Your task to perform on an android device: Toggle the flashlight Image 0: 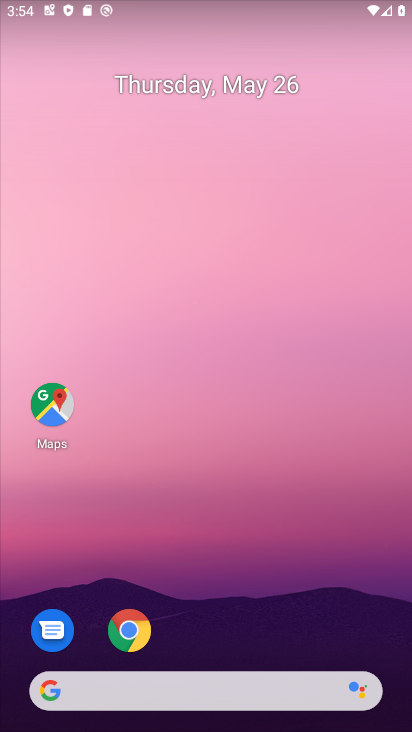
Step 0: drag from (262, 579) to (264, 0)
Your task to perform on an android device: Toggle the flashlight Image 1: 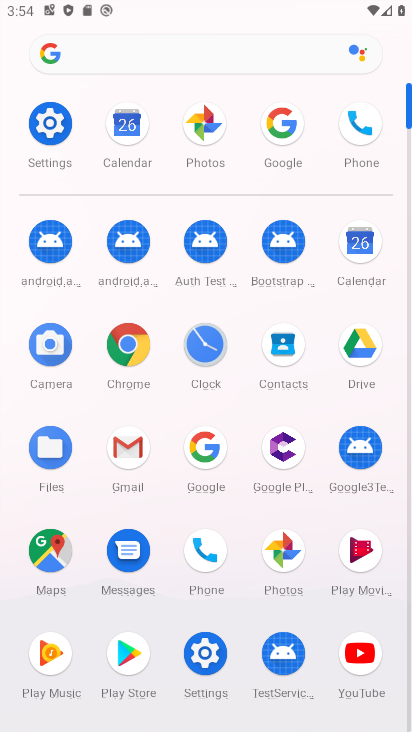
Step 1: click (51, 124)
Your task to perform on an android device: Toggle the flashlight Image 2: 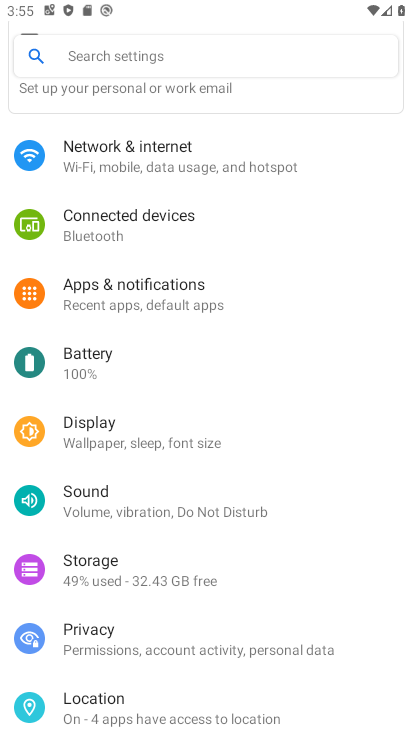
Step 2: drag from (129, 355) to (158, 304)
Your task to perform on an android device: Toggle the flashlight Image 3: 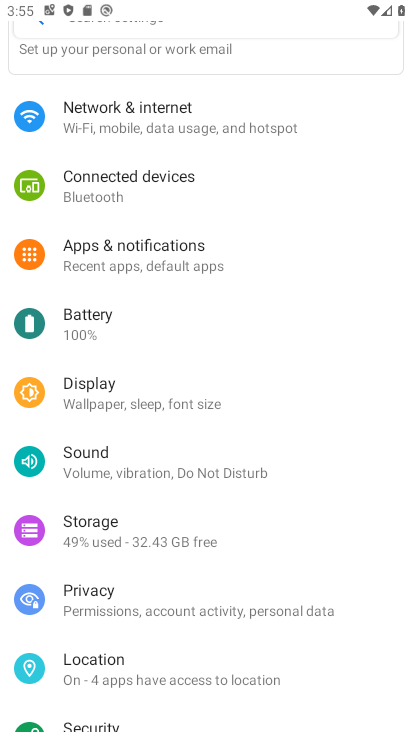
Step 3: drag from (143, 361) to (163, 303)
Your task to perform on an android device: Toggle the flashlight Image 4: 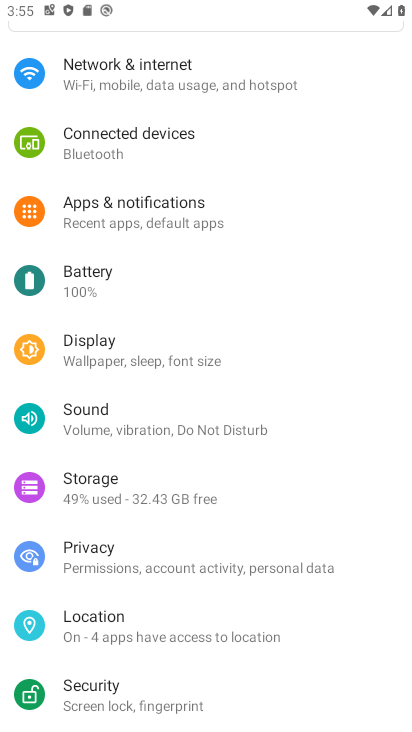
Step 4: drag from (118, 447) to (166, 383)
Your task to perform on an android device: Toggle the flashlight Image 5: 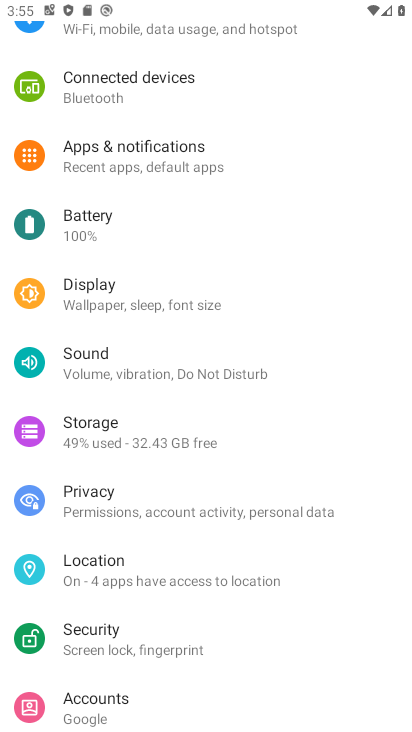
Step 5: drag from (146, 483) to (197, 403)
Your task to perform on an android device: Toggle the flashlight Image 6: 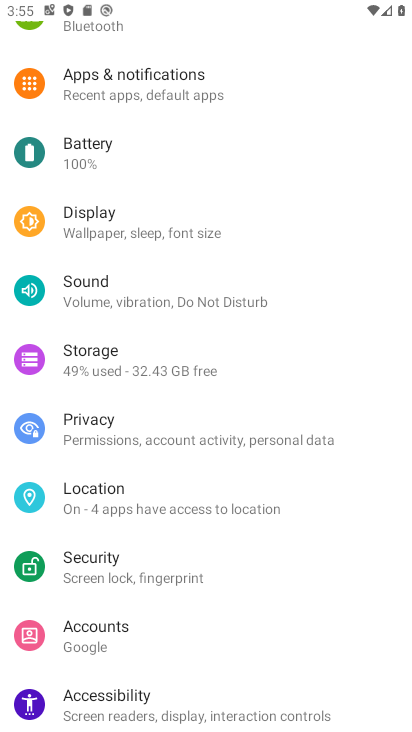
Step 6: drag from (141, 489) to (220, 399)
Your task to perform on an android device: Toggle the flashlight Image 7: 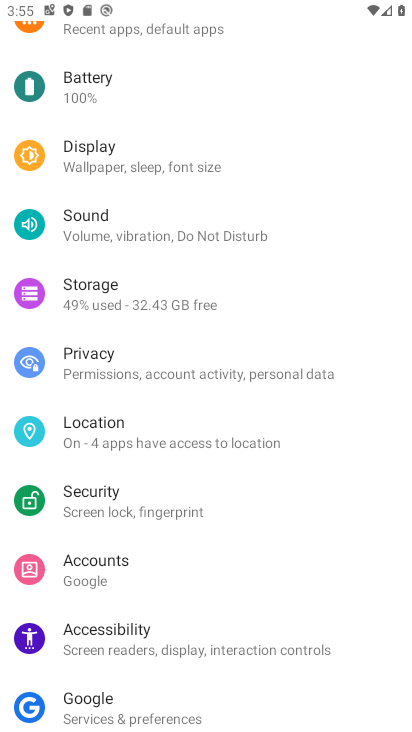
Step 7: click (208, 391)
Your task to perform on an android device: Toggle the flashlight Image 8: 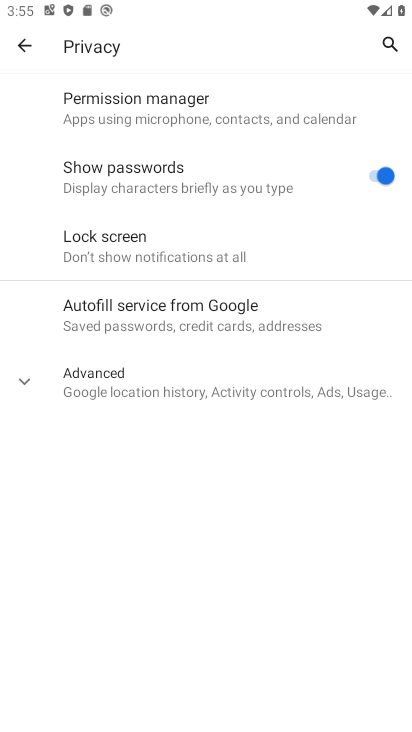
Step 8: press back button
Your task to perform on an android device: Toggle the flashlight Image 9: 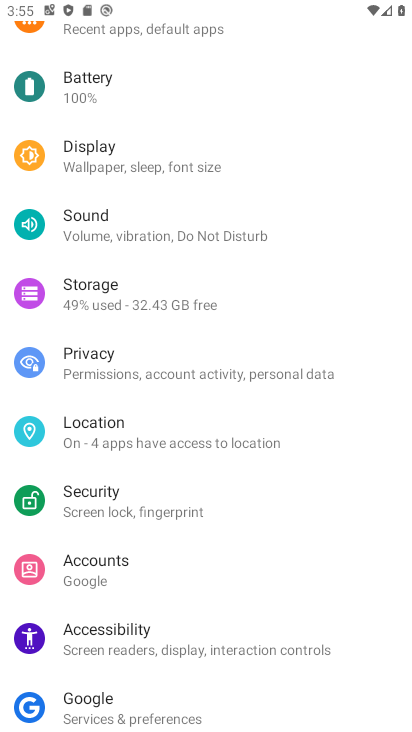
Step 9: drag from (170, 581) to (228, 466)
Your task to perform on an android device: Toggle the flashlight Image 10: 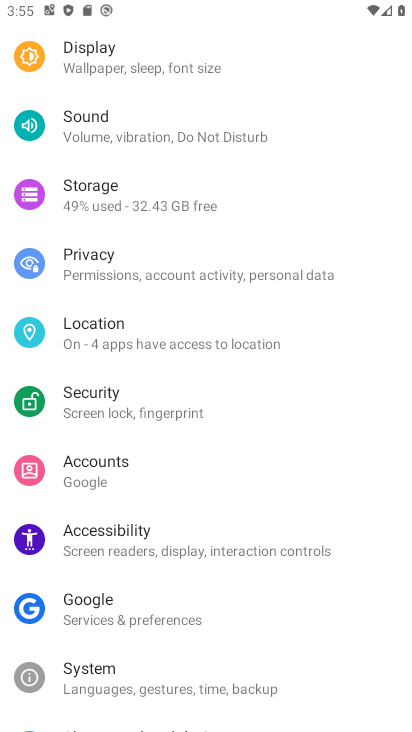
Step 10: click (138, 528)
Your task to perform on an android device: Toggle the flashlight Image 11: 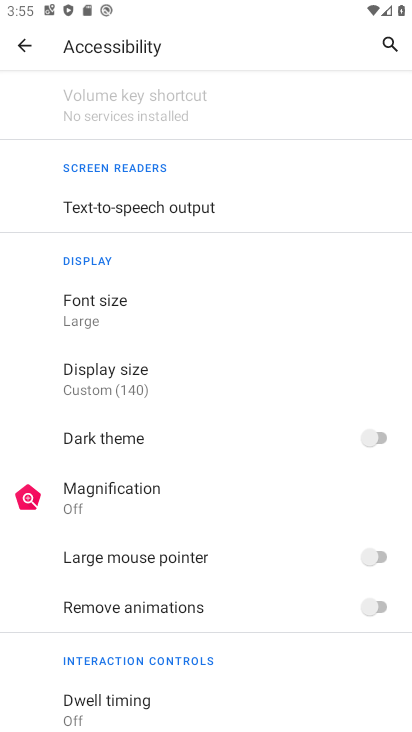
Step 11: drag from (190, 440) to (240, 355)
Your task to perform on an android device: Toggle the flashlight Image 12: 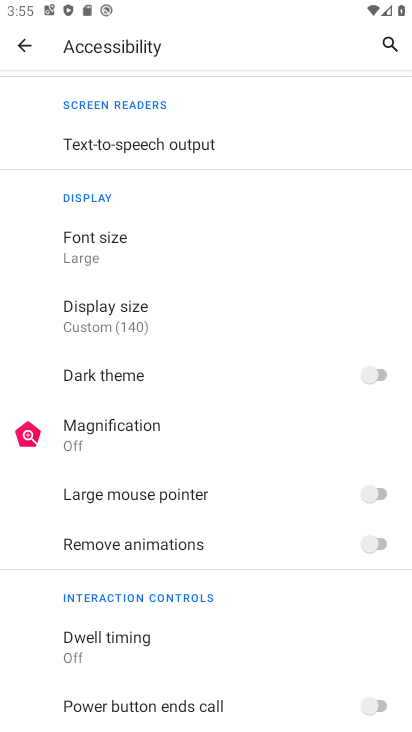
Step 12: drag from (158, 462) to (218, 335)
Your task to perform on an android device: Toggle the flashlight Image 13: 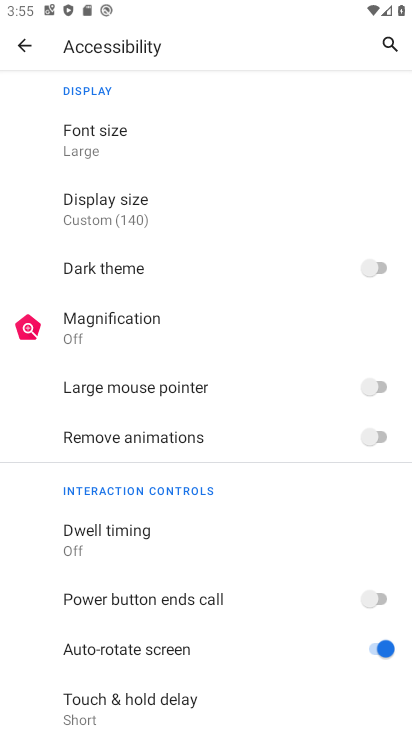
Step 13: drag from (139, 557) to (211, 470)
Your task to perform on an android device: Toggle the flashlight Image 14: 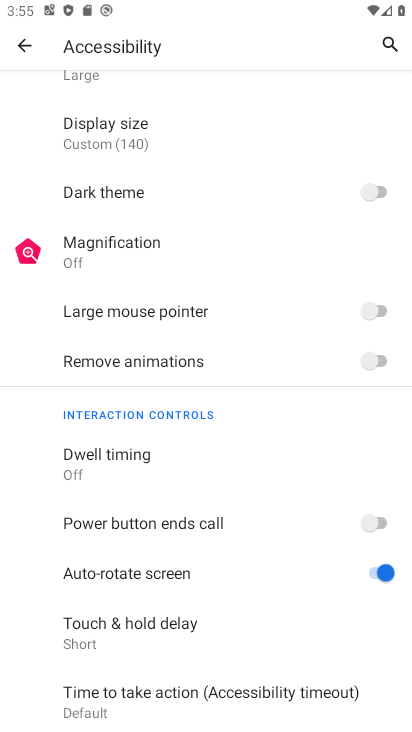
Step 14: drag from (156, 561) to (206, 483)
Your task to perform on an android device: Toggle the flashlight Image 15: 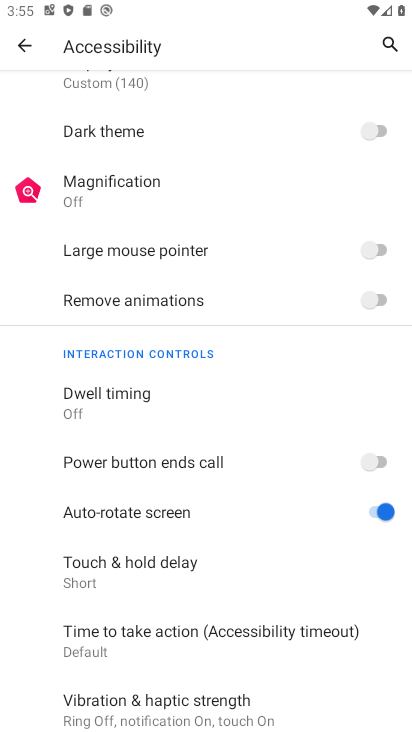
Step 15: drag from (142, 604) to (206, 518)
Your task to perform on an android device: Toggle the flashlight Image 16: 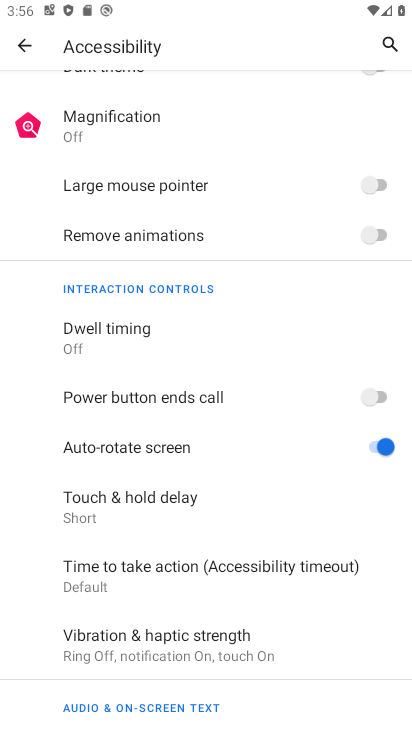
Step 16: drag from (118, 610) to (194, 517)
Your task to perform on an android device: Toggle the flashlight Image 17: 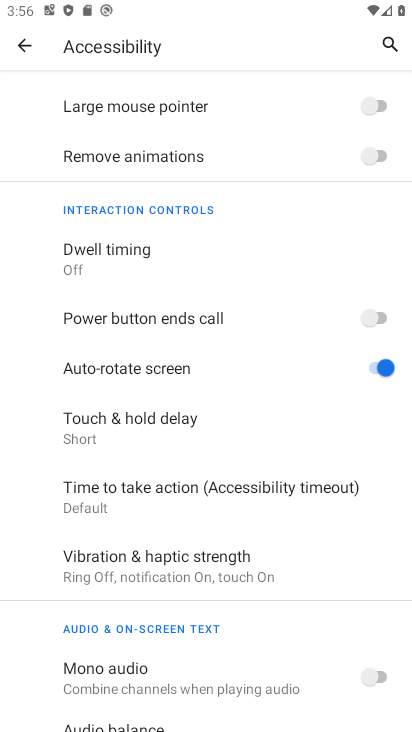
Step 17: drag from (123, 612) to (188, 516)
Your task to perform on an android device: Toggle the flashlight Image 18: 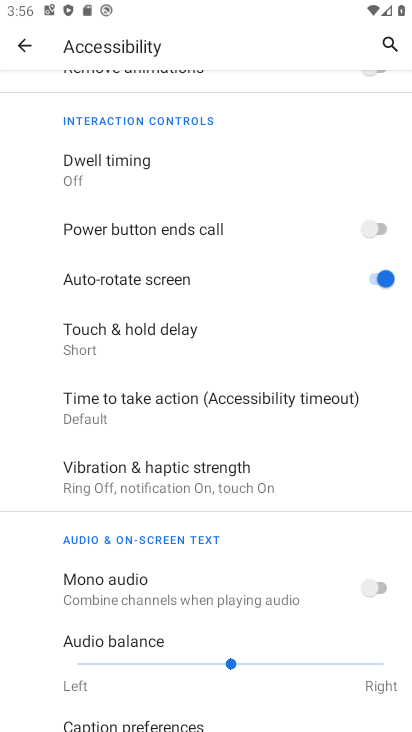
Step 18: press back button
Your task to perform on an android device: Toggle the flashlight Image 19: 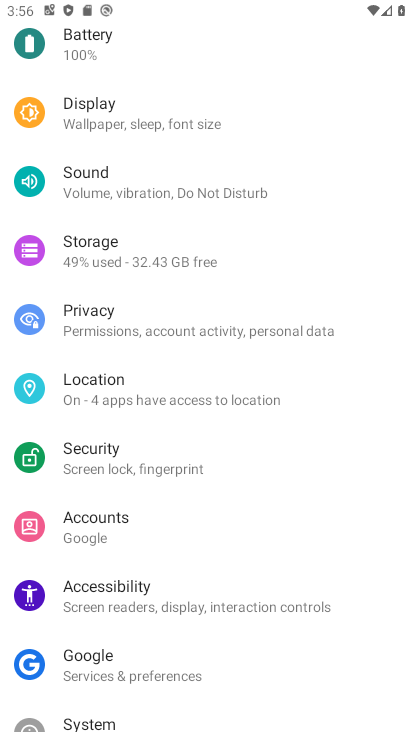
Step 19: drag from (188, 309) to (210, 382)
Your task to perform on an android device: Toggle the flashlight Image 20: 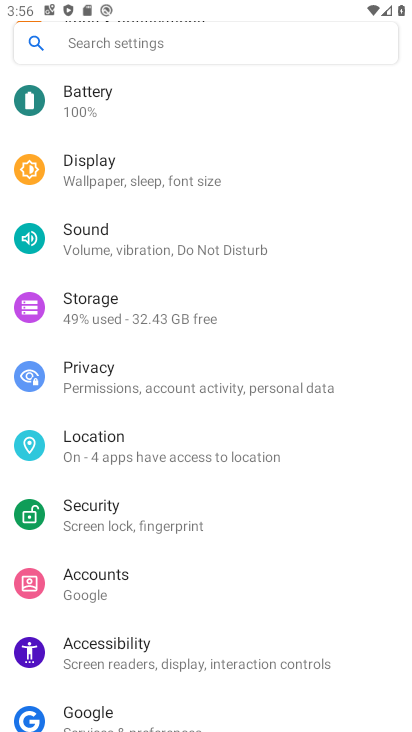
Step 20: click (225, 183)
Your task to perform on an android device: Toggle the flashlight Image 21: 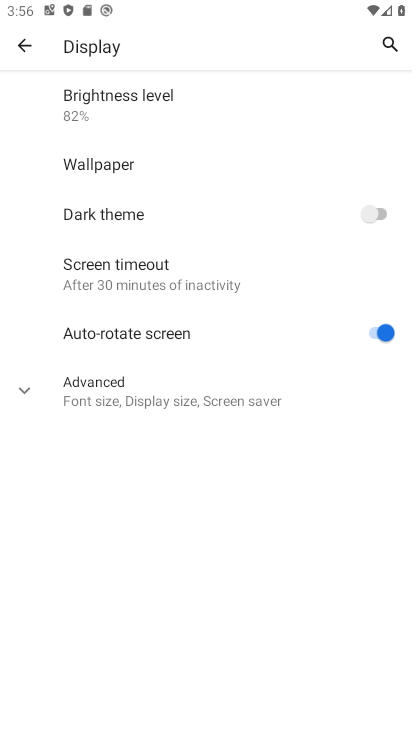
Step 21: task complete